Your task to perform on an android device: move an email to a new category in the gmail app Image 0: 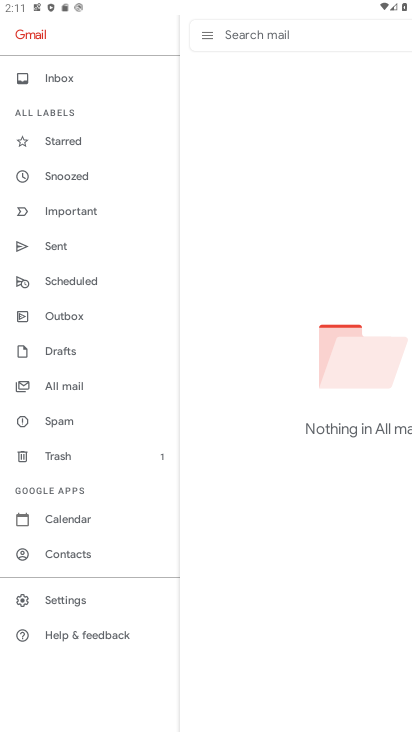
Step 0: click (64, 74)
Your task to perform on an android device: move an email to a new category in the gmail app Image 1: 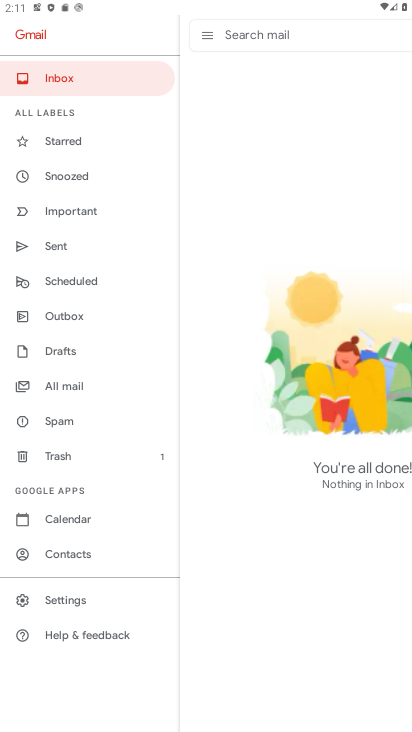
Step 1: task complete